Your task to perform on an android device: all mails in gmail Image 0: 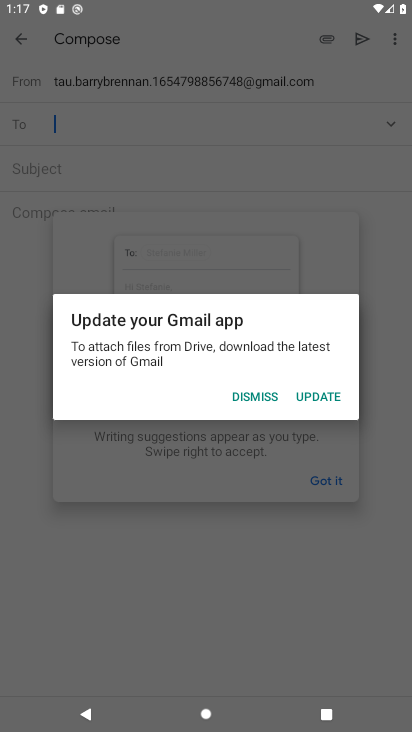
Step 0: click (326, 390)
Your task to perform on an android device: all mails in gmail Image 1: 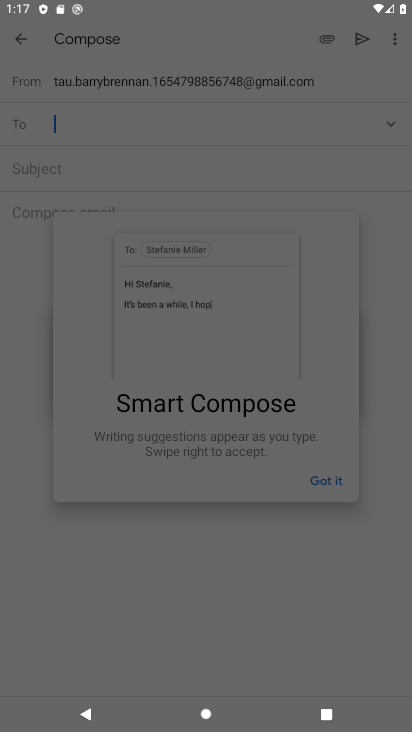
Step 1: click (268, 385)
Your task to perform on an android device: all mails in gmail Image 2: 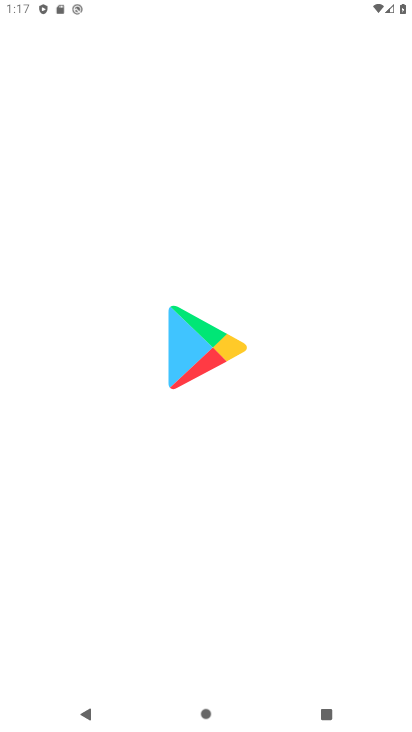
Step 2: press back button
Your task to perform on an android device: all mails in gmail Image 3: 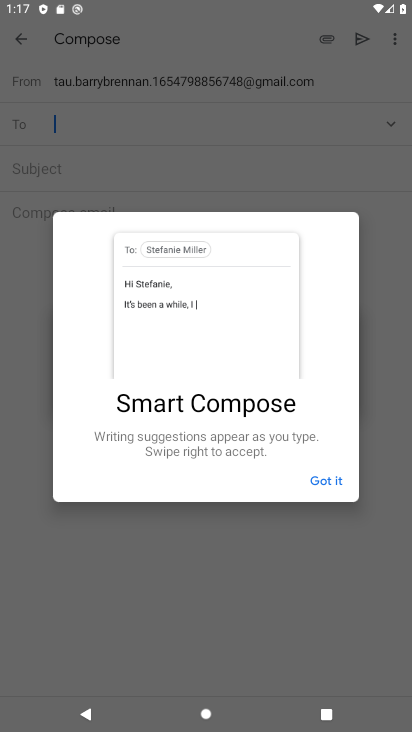
Step 3: click (336, 476)
Your task to perform on an android device: all mails in gmail Image 4: 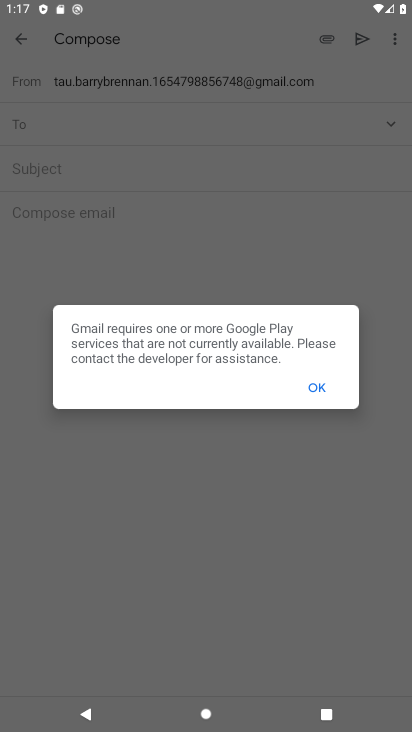
Step 4: click (323, 386)
Your task to perform on an android device: all mails in gmail Image 5: 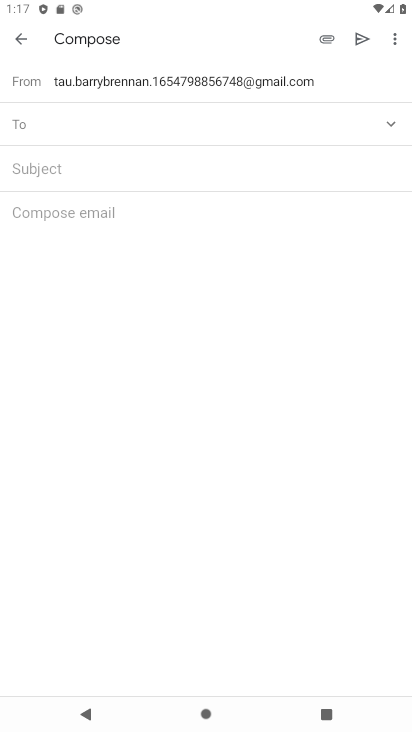
Step 5: click (31, 36)
Your task to perform on an android device: all mails in gmail Image 6: 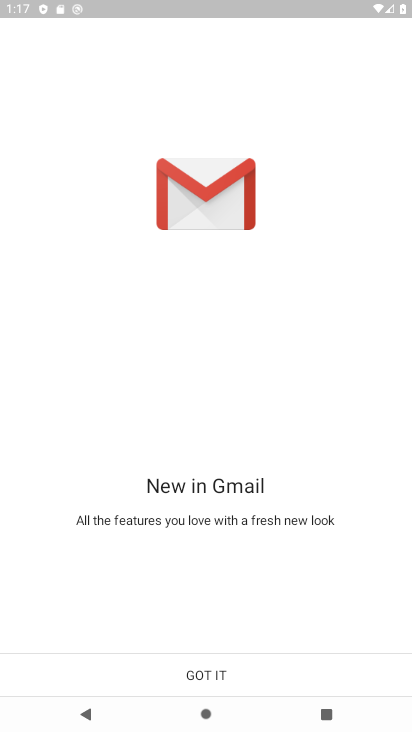
Step 6: click (178, 675)
Your task to perform on an android device: all mails in gmail Image 7: 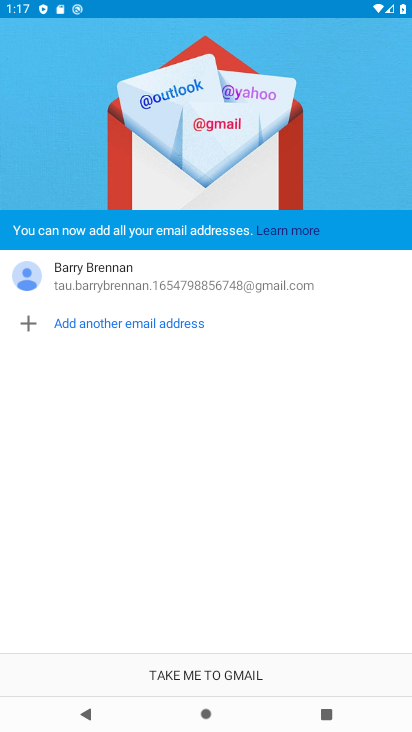
Step 7: click (214, 666)
Your task to perform on an android device: all mails in gmail Image 8: 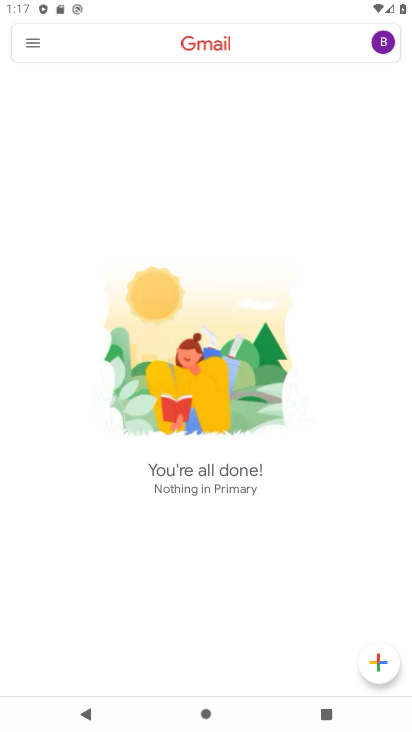
Step 8: click (39, 40)
Your task to perform on an android device: all mails in gmail Image 9: 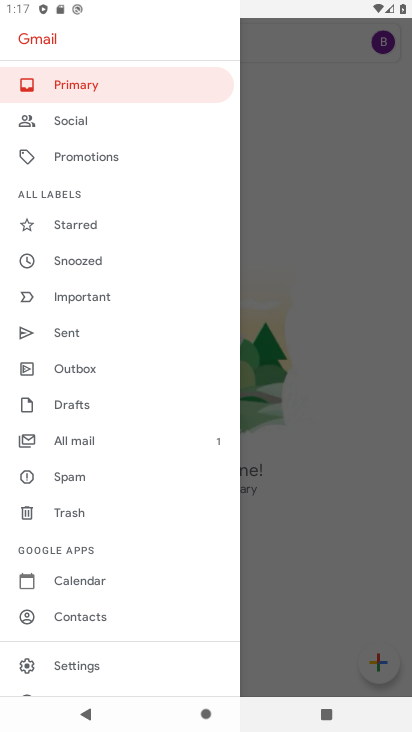
Step 9: click (84, 450)
Your task to perform on an android device: all mails in gmail Image 10: 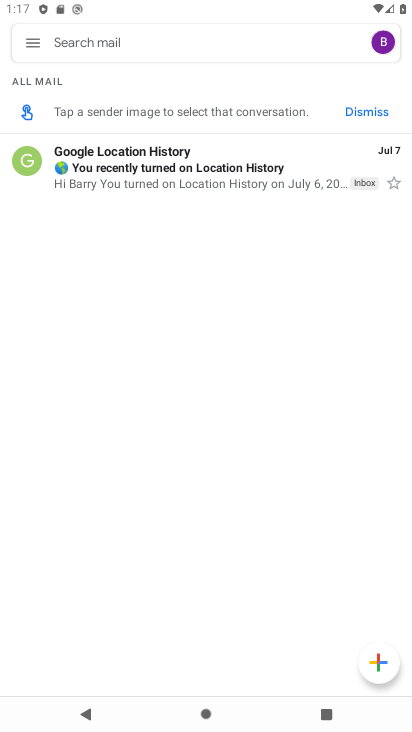
Step 10: task complete